Your task to perform on an android device: Show the shopping cart on target. Image 0: 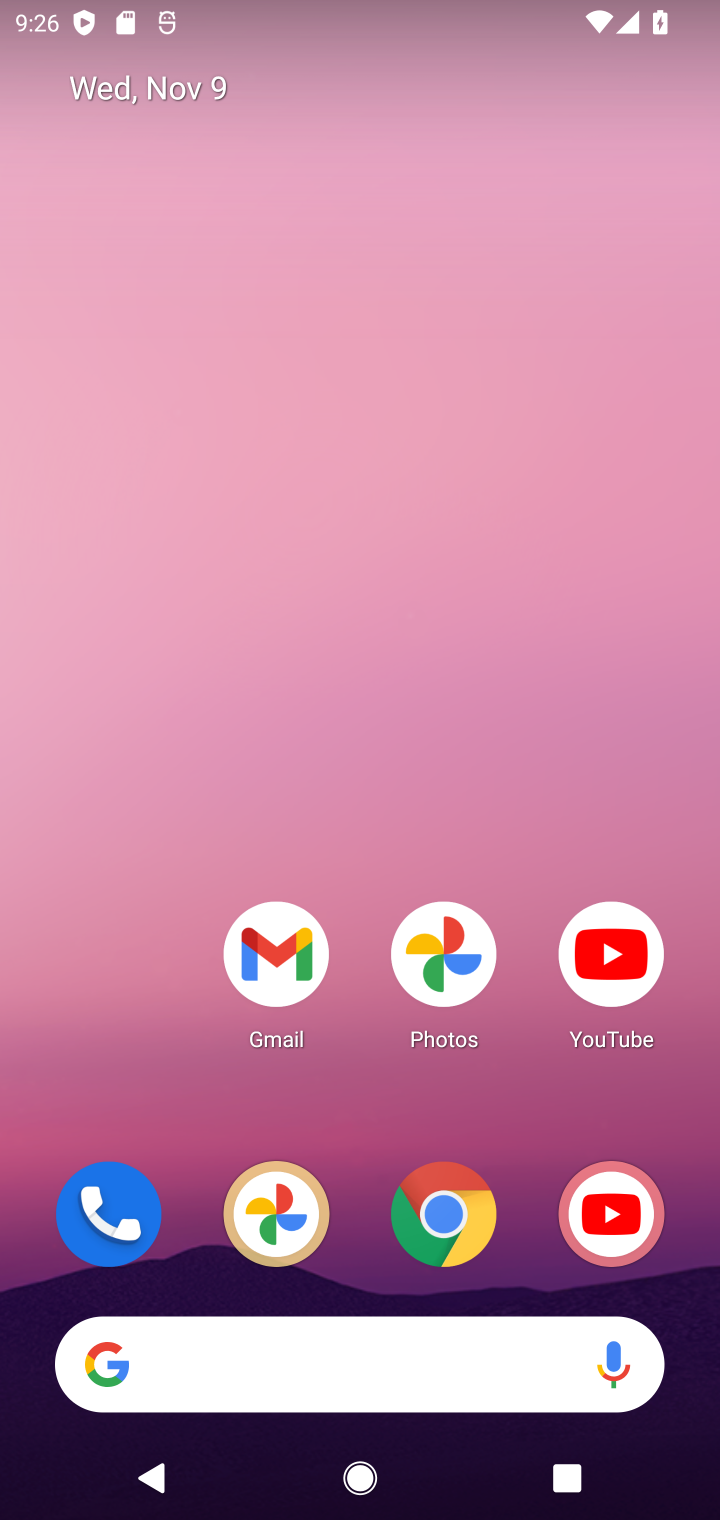
Step 0: drag from (388, 1129) to (293, 219)
Your task to perform on an android device: Show the shopping cart on target. Image 1: 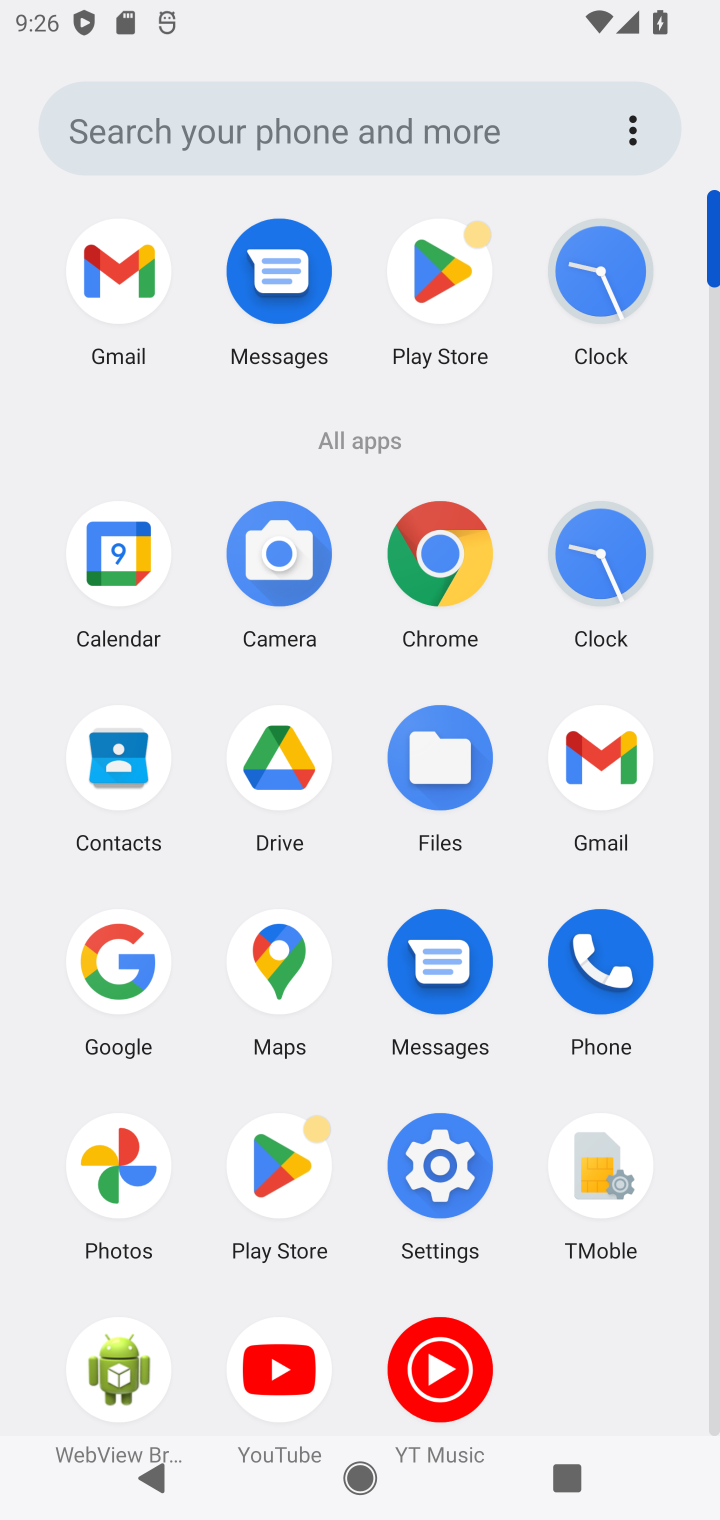
Step 1: click (457, 558)
Your task to perform on an android device: Show the shopping cart on target. Image 2: 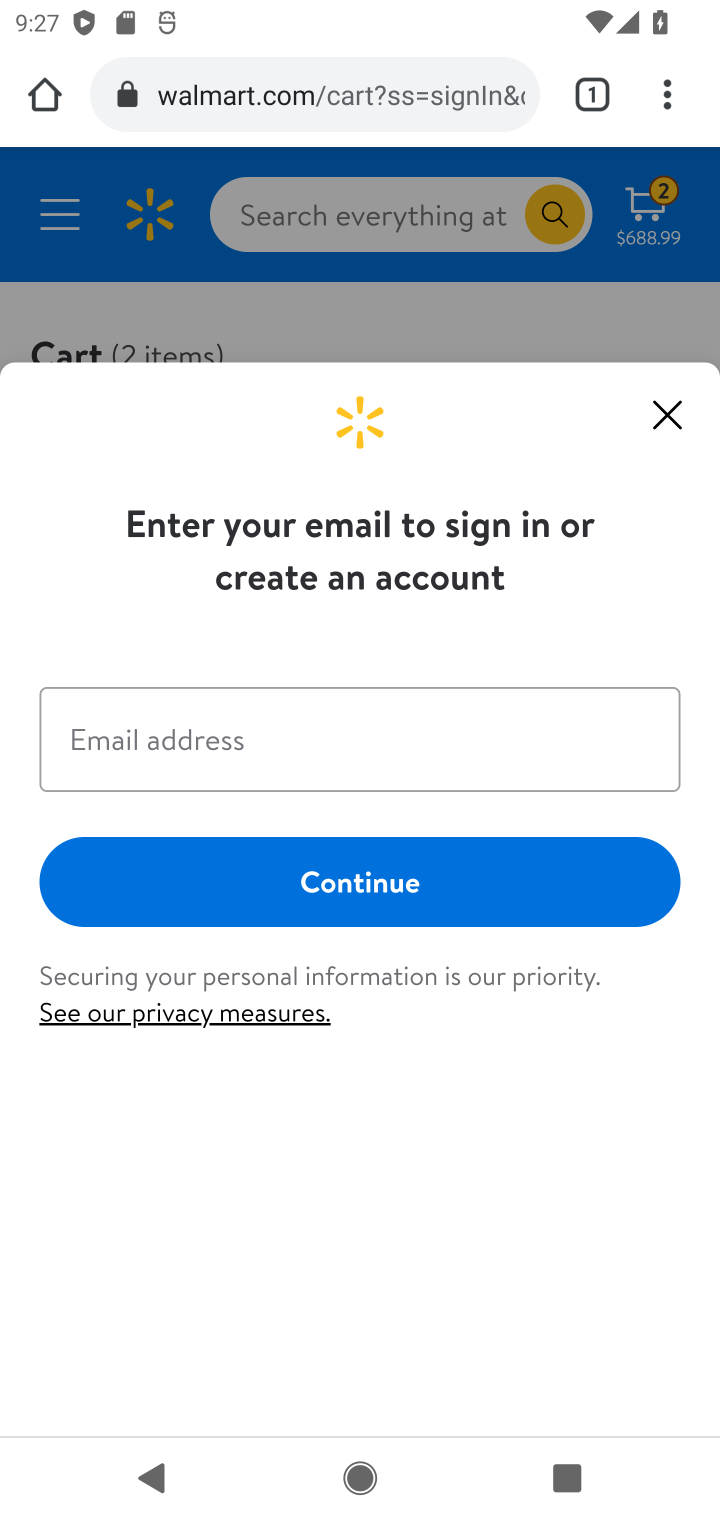
Step 2: click (456, 84)
Your task to perform on an android device: Show the shopping cart on target. Image 3: 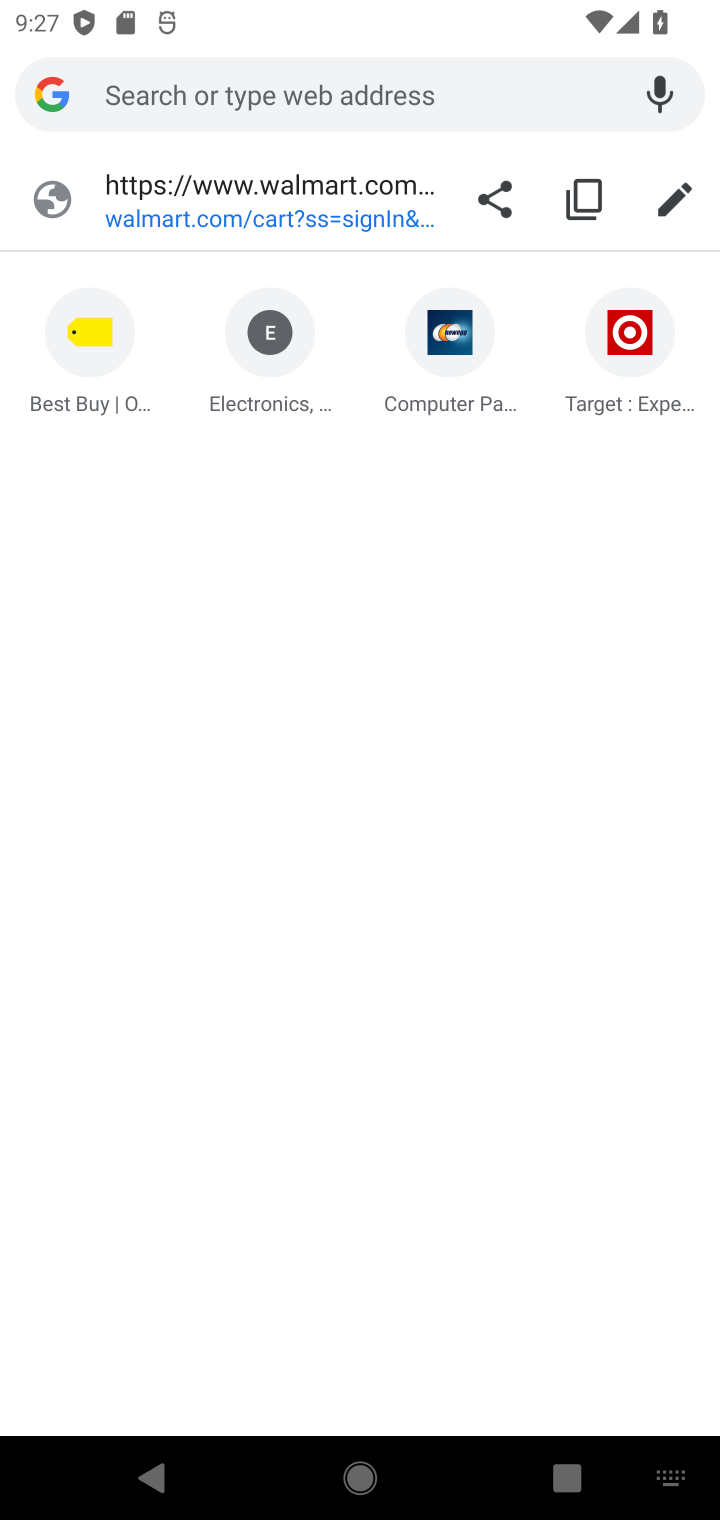
Step 3: type "target.com"
Your task to perform on an android device: Show the shopping cart on target. Image 4: 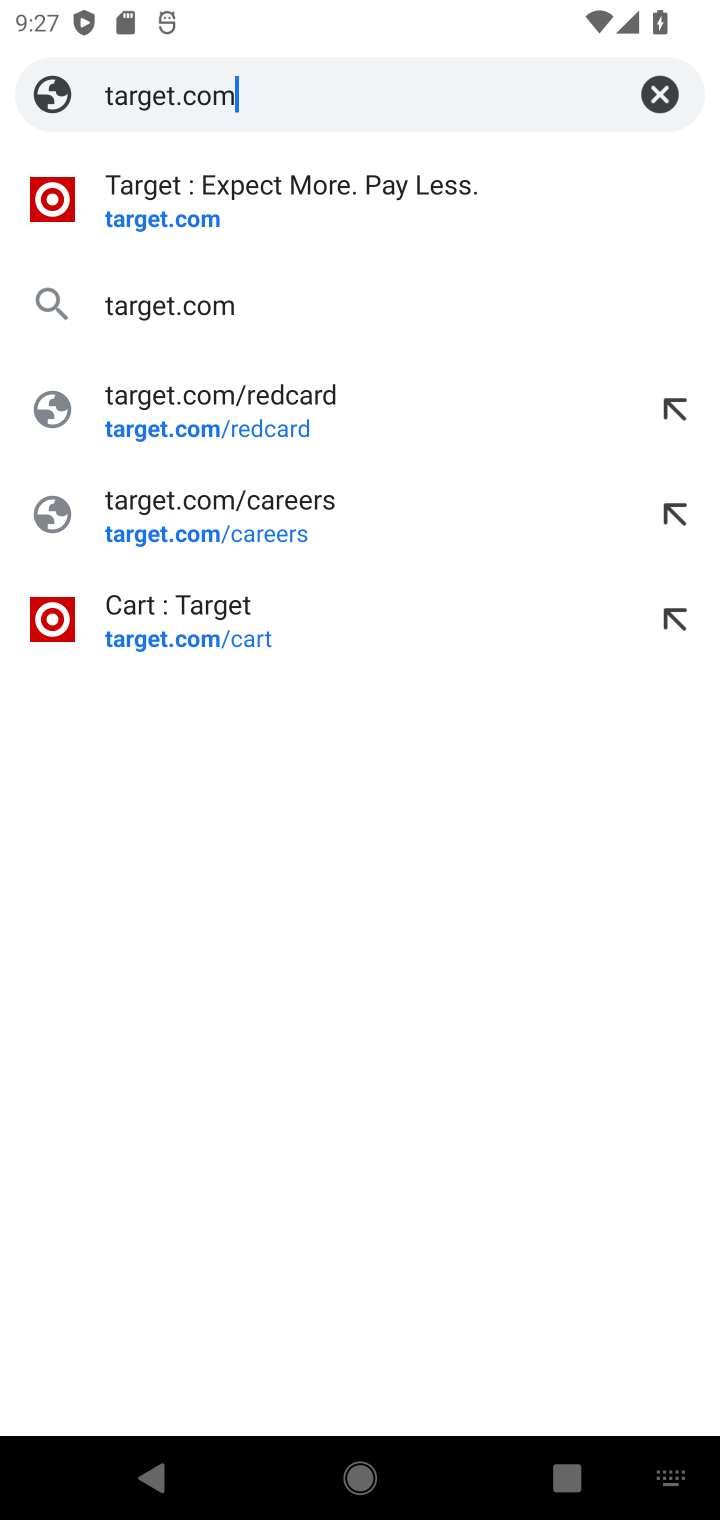
Step 4: press enter
Your task to perform on an android device: Show the shopping cart on target. Image 5: 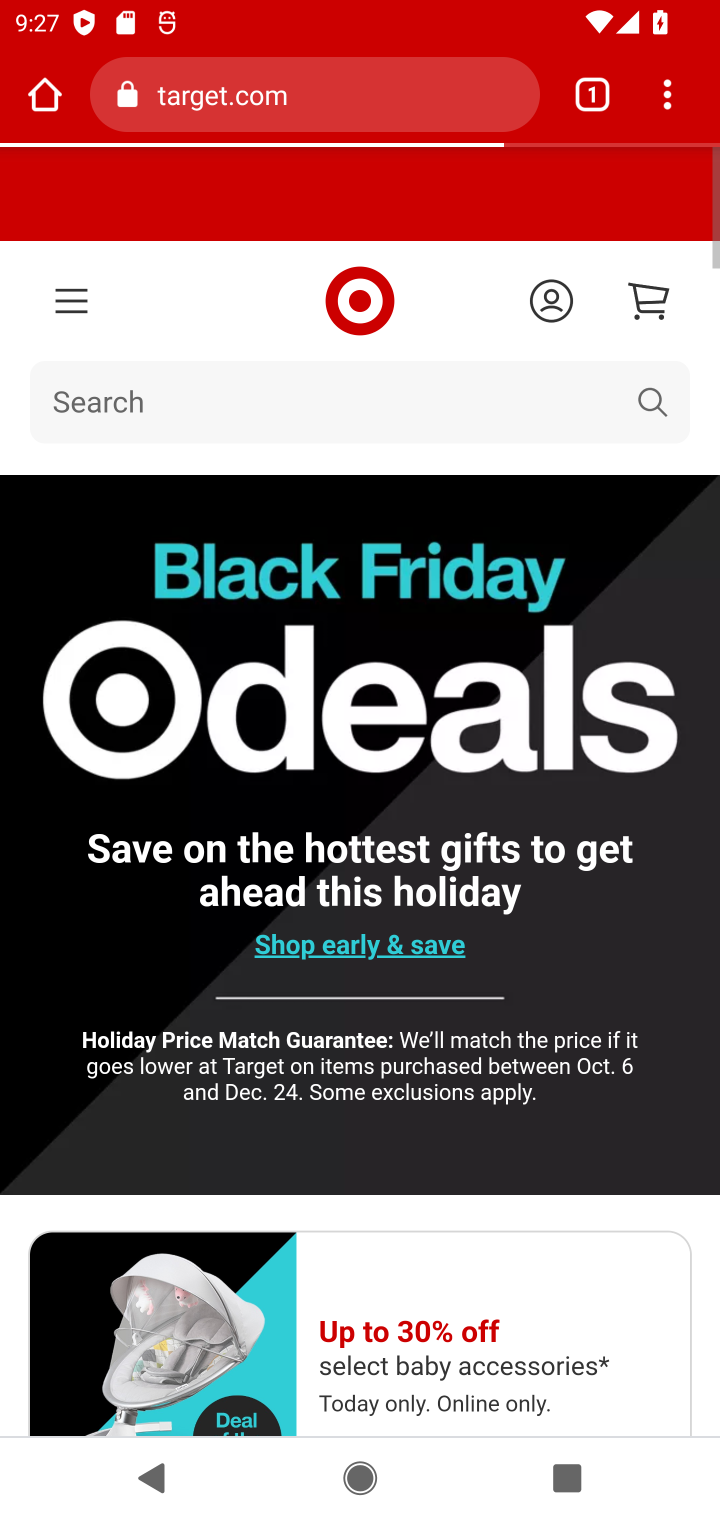
Step 5: click (630, 306)
Your task to perform on an android device: Show the shopping cart on target. Image 6: 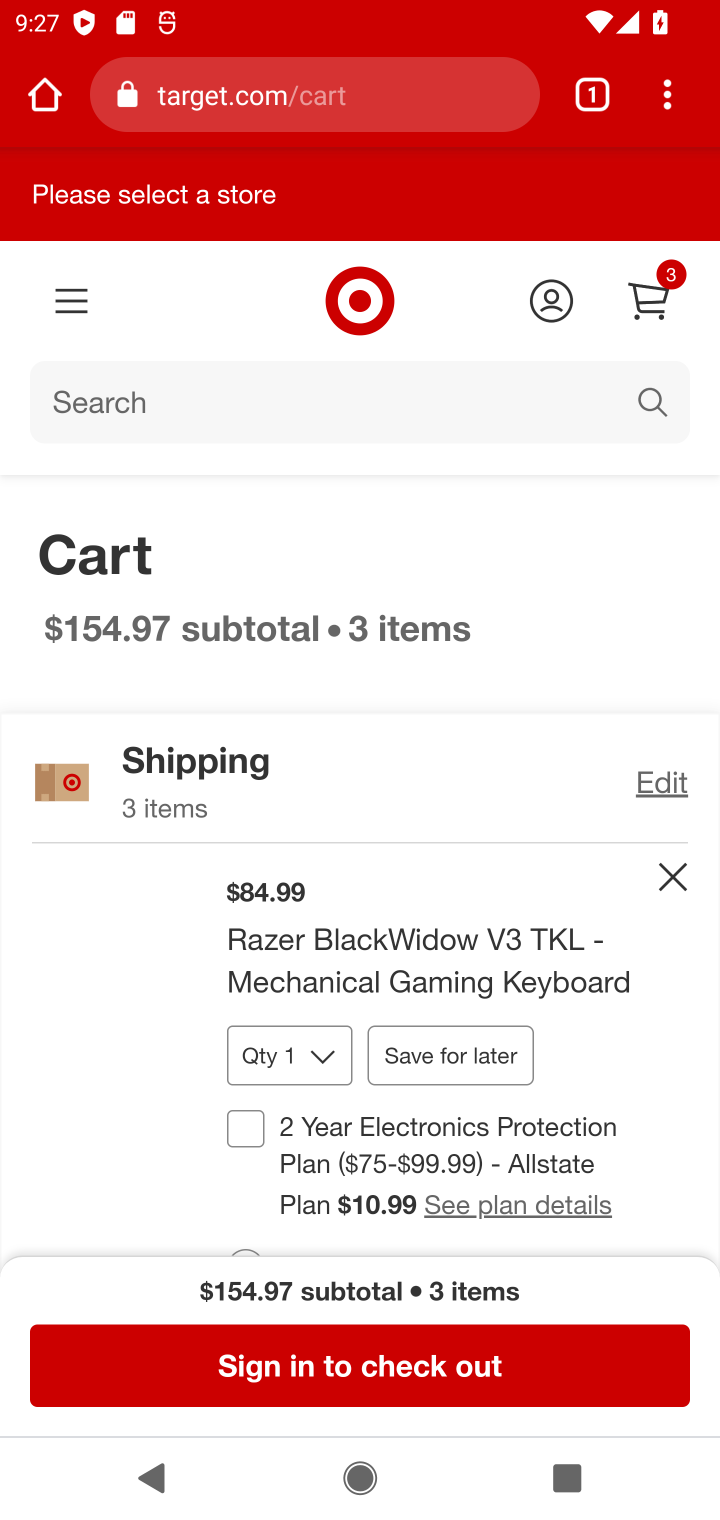
Step 6: task complete